Your task to perform on an android device: turn pop-ups off in chrome Image 0: 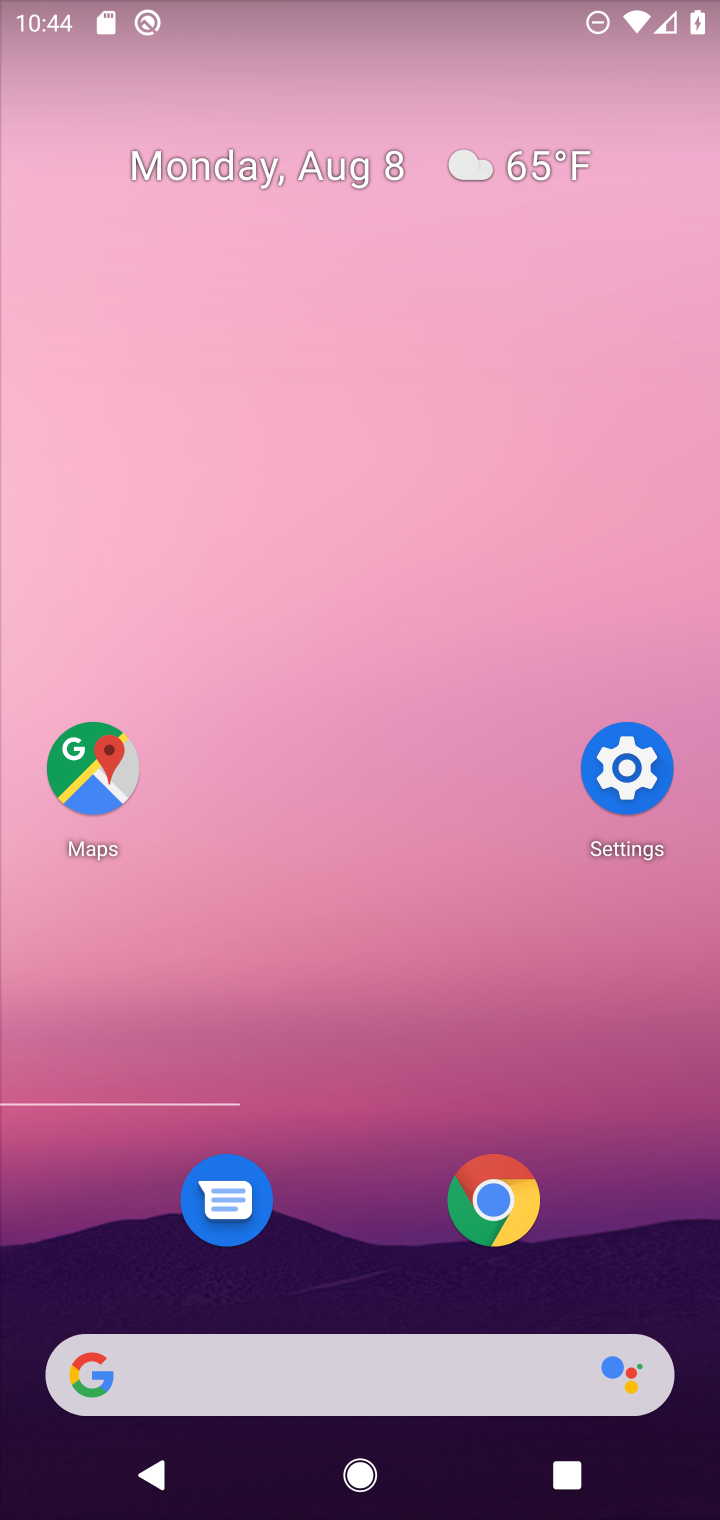
Step 0: click (486, 1187)
Your task to perform on an android device: turn pop-ups off in chrome Image 1: 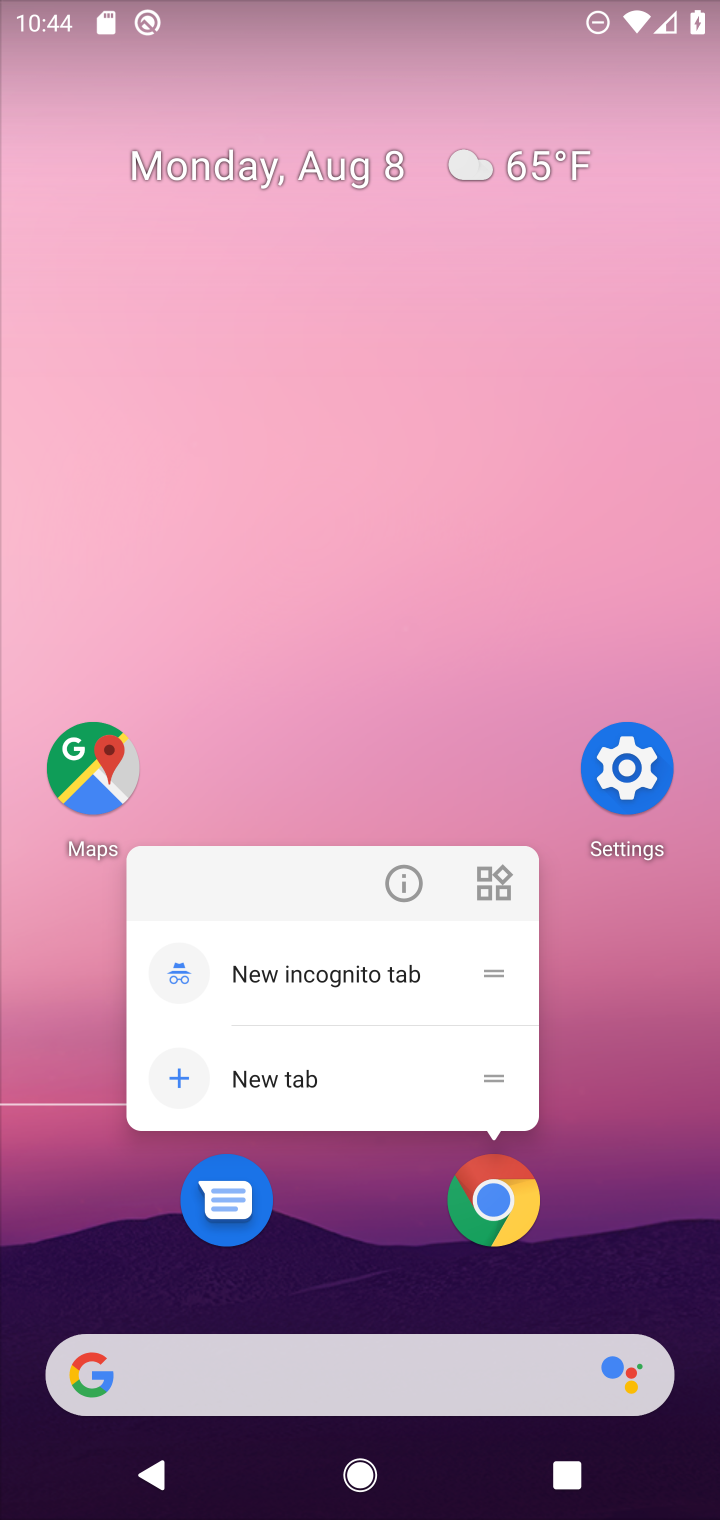
Step 1: click (486, 1187)
Your task to perform on an android device: turn pop-ups off in chrome Image 2: 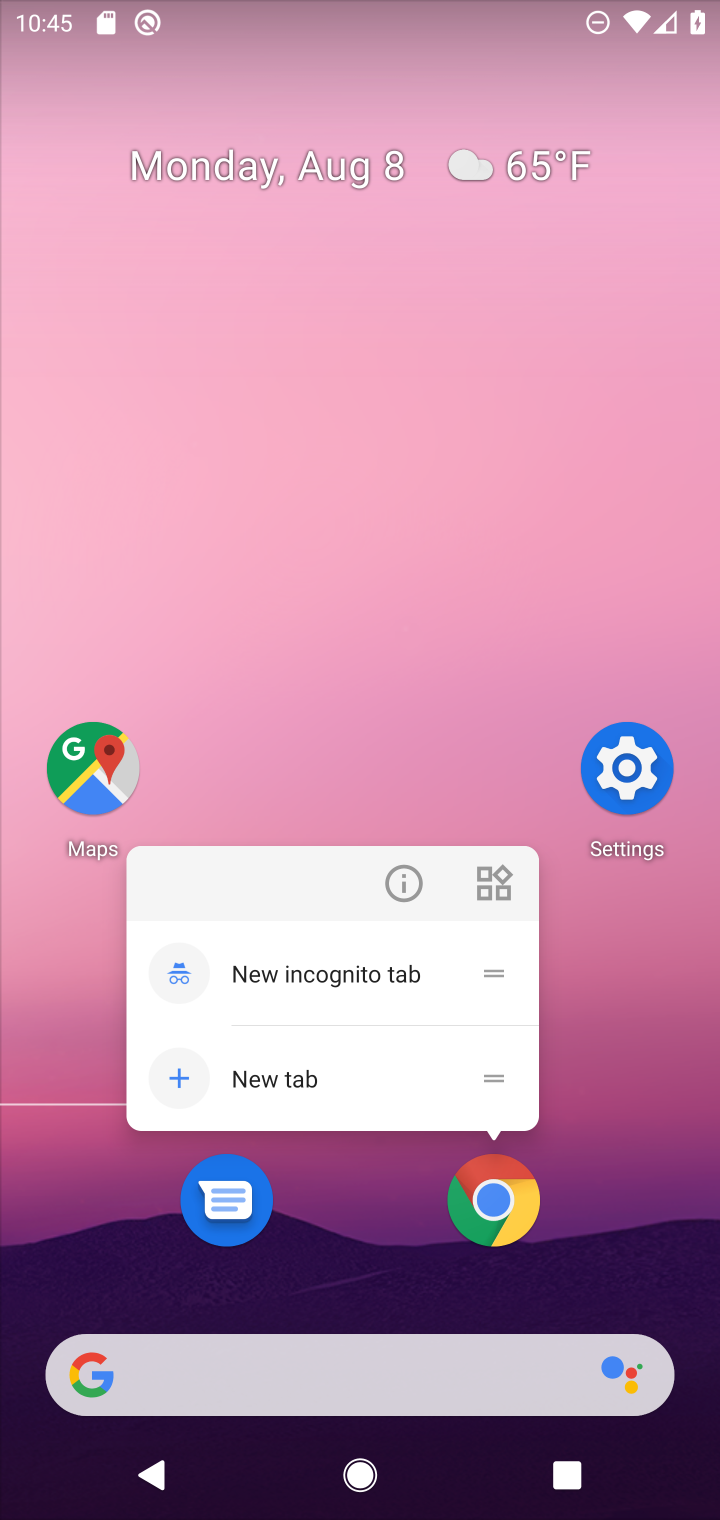
Step 2: click (505, 1206)
Your task to perform on an android device: turn pop-ups off in chrome Image 3: 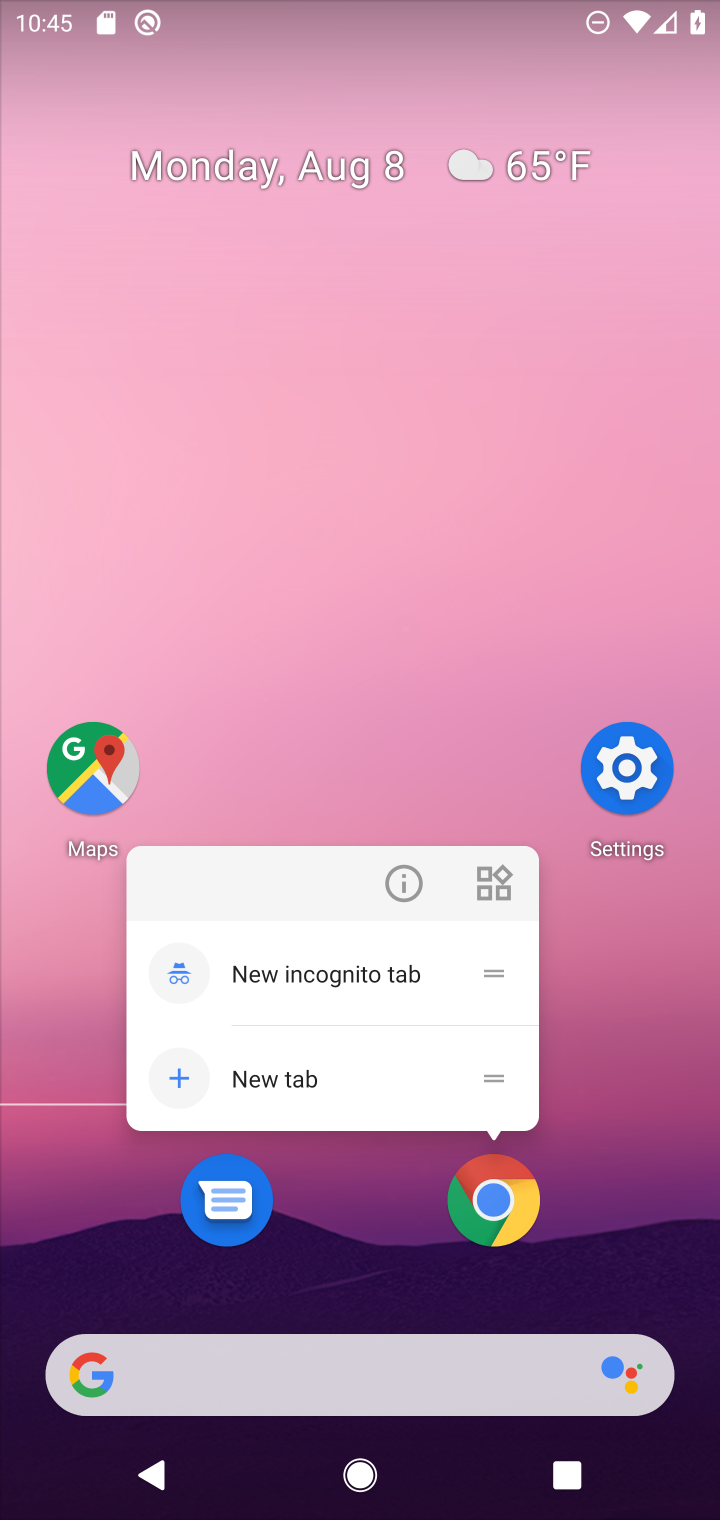
Step 3: click (505, 1217)
Your task to perform on an android device: turn pop-ups off in chrome Image 4: 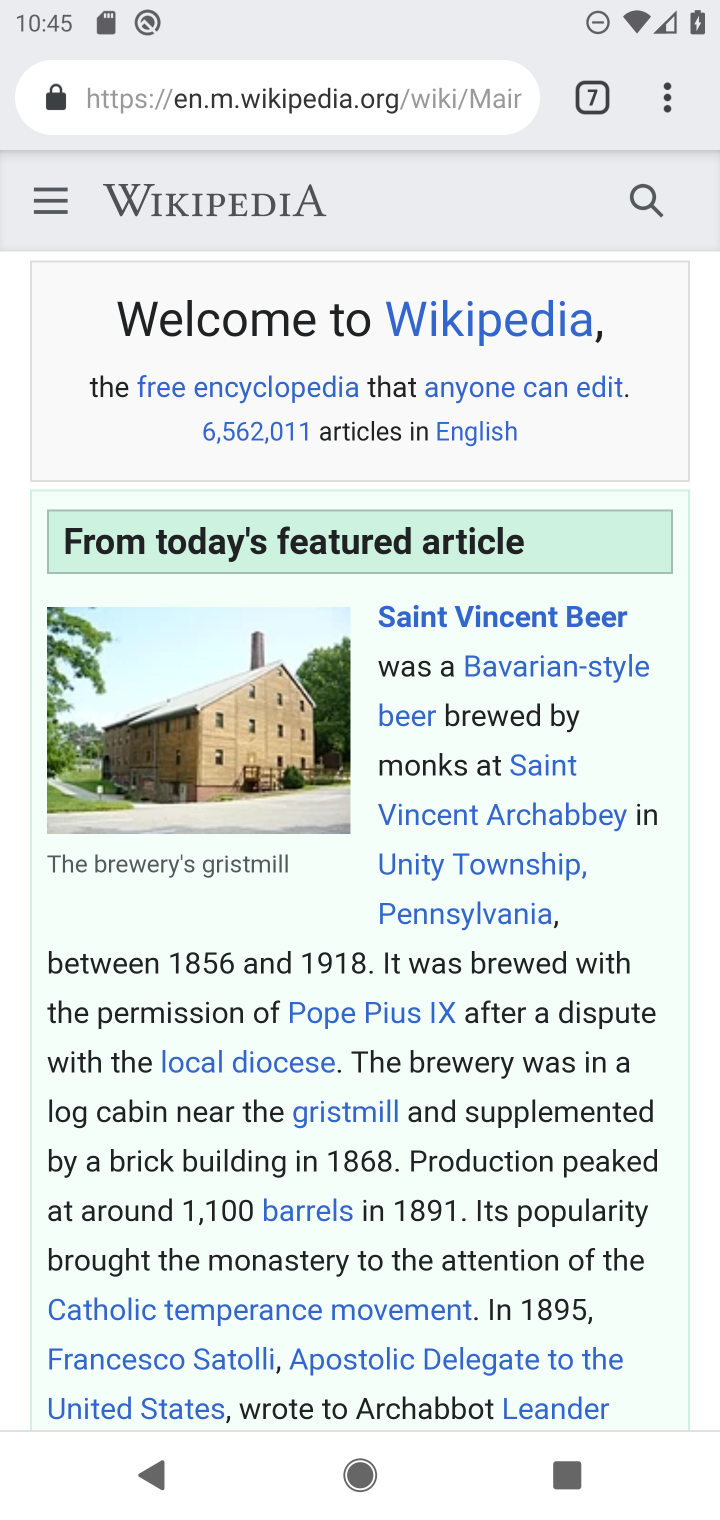
Step 4: drag from (665, 102) to (430, 1297)
Your task to perform on an android device: turn pop-ups off in chrome Image 5: 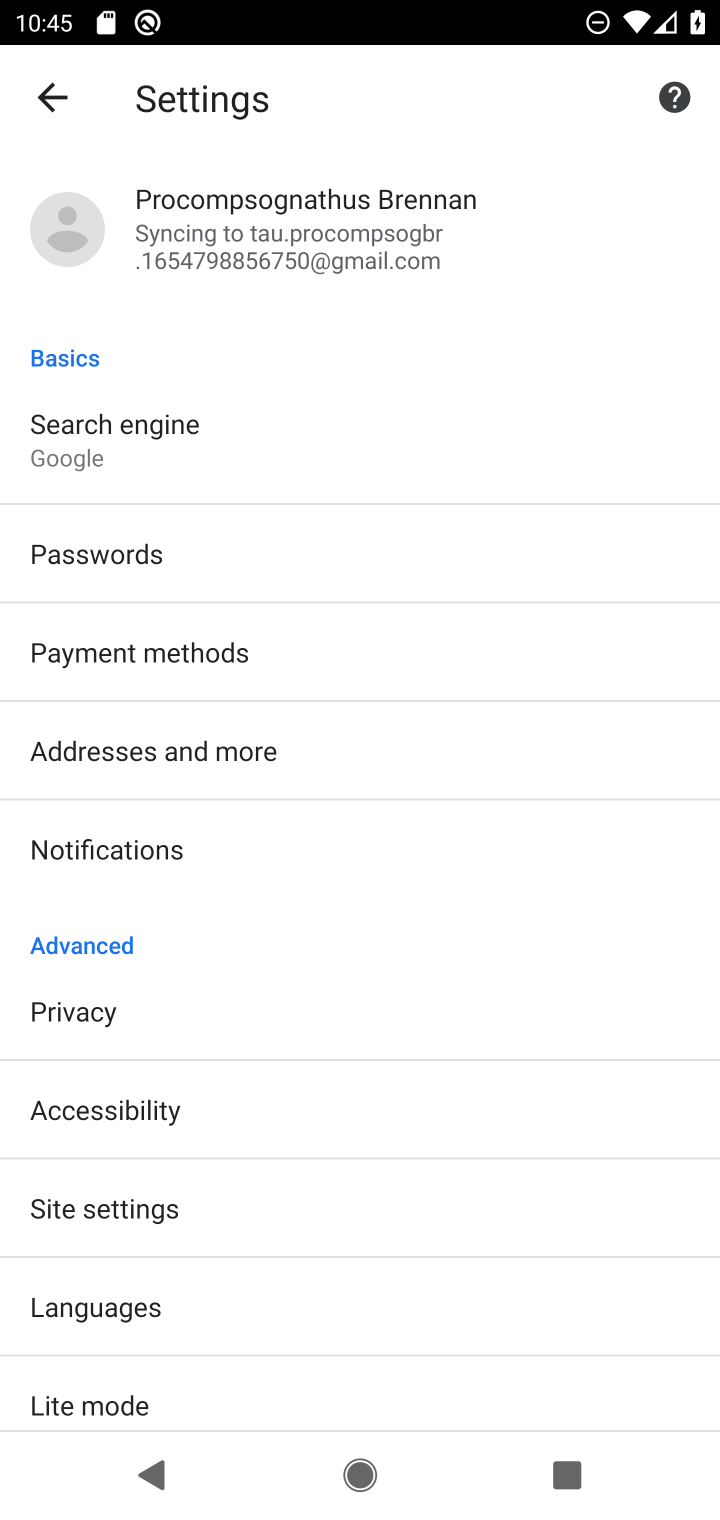
Step 5: click (149, 1201)
Your task to perform on an android device: turn pop-ups off in chrome Image 6: 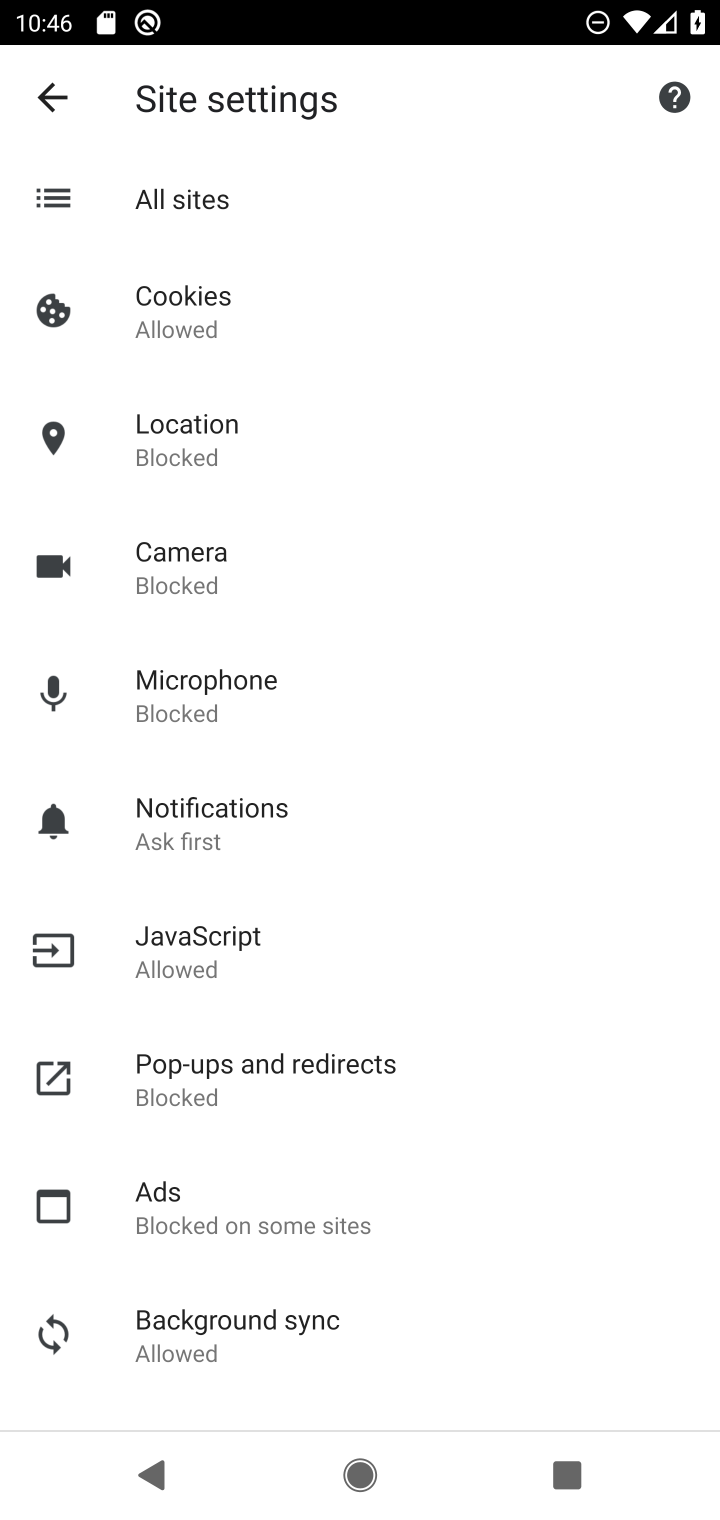
Step 6: click (281, 1078)
Your task to perform on an android device: turn pop-ups off in chrome Image 7: 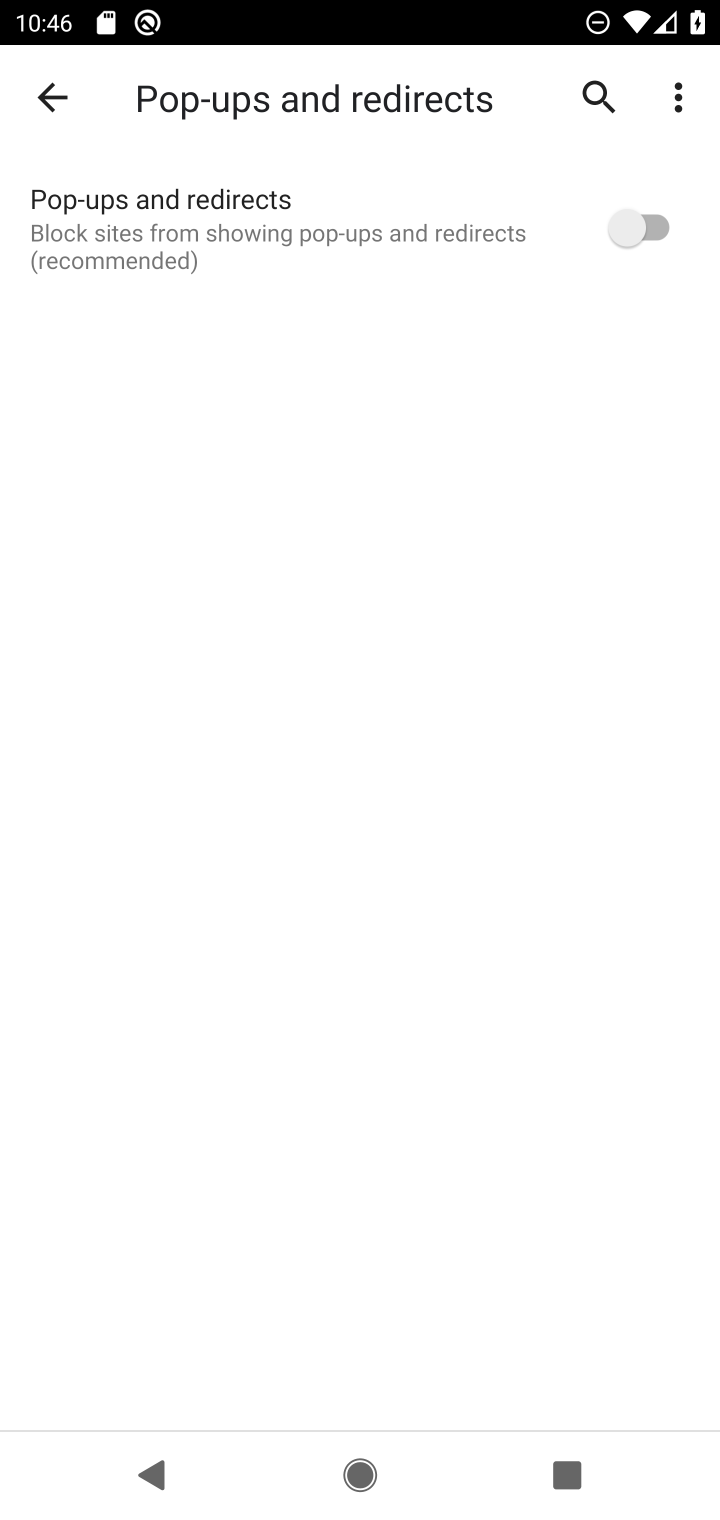
Step 7: task complete